Your task to perform on an android device: Open Google Chrome Image 0: 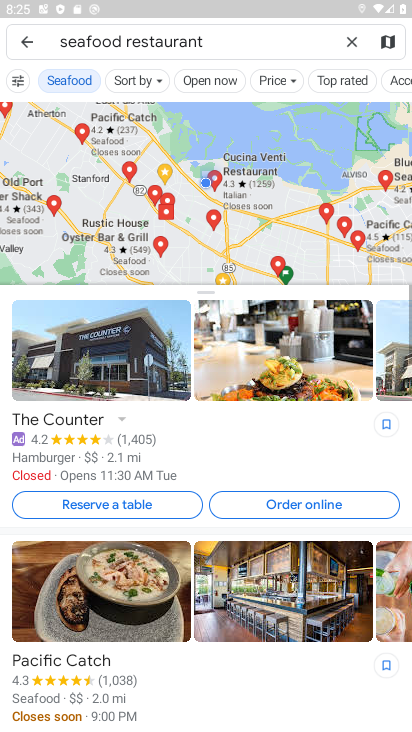
Step 0: press home button
Your task to perform on an android device: Open Google Chrome Image 1: 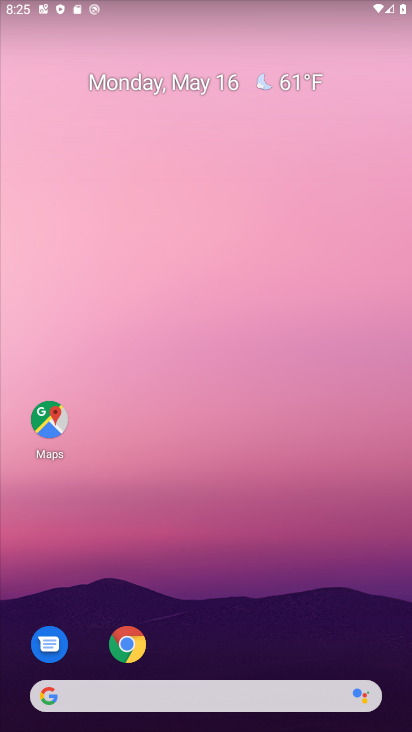
Step 1: click (128, 639)
Your task to perform on an android device: Open Google Chrome Image 2: 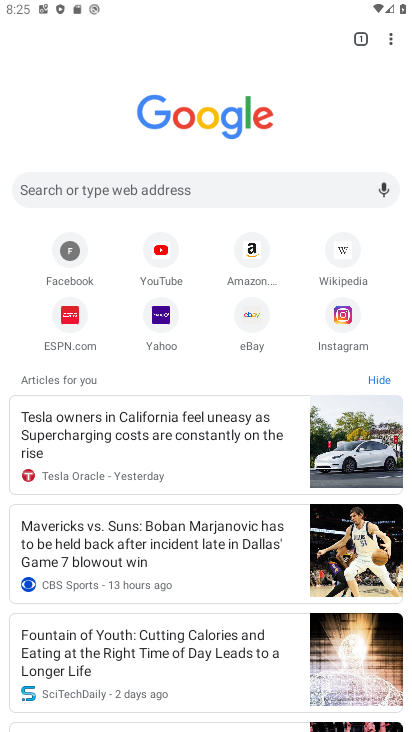
Step 2: task complete